Your task to perform on an android device: move an email to a new category in the gmail app Image 0: 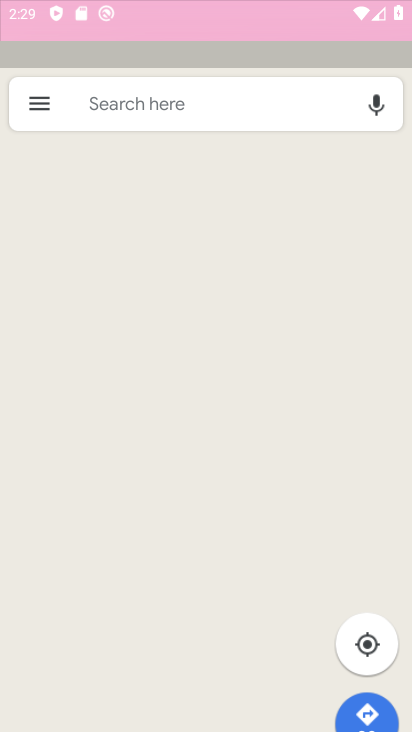
Step 0: click (202, 128)
Your task to perform on an android device: move an email to a new category in the gmail app Image 1: 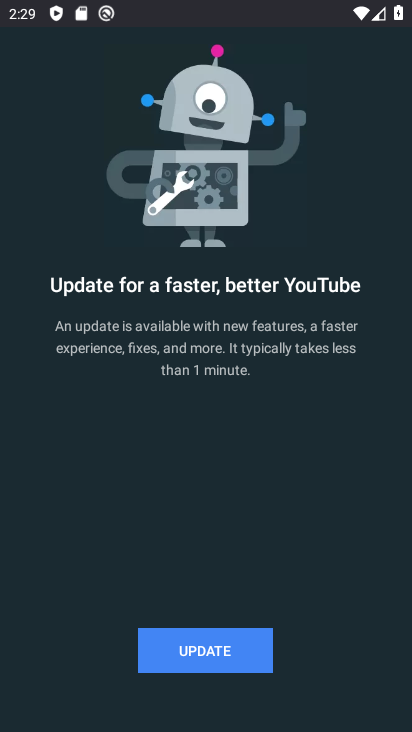
Step 1: press home button
Your task to perform on an android device: move an email to a new category in the gmail app Image 2: 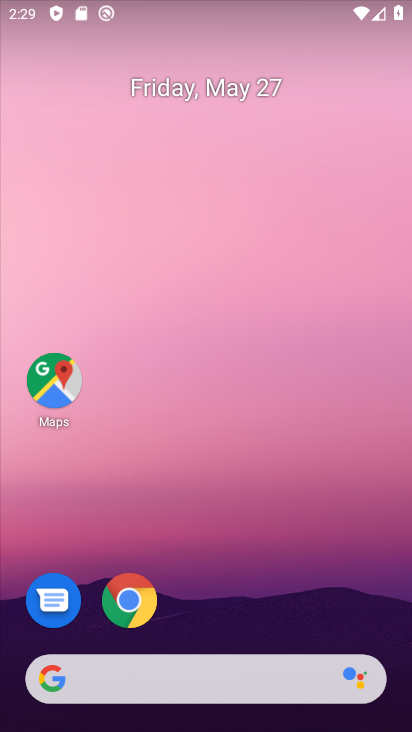
Step 2: drag from (225, 730) to (228, 296)
Your task to perform on an android device: move an email to a new category in the gmail app Image 3: 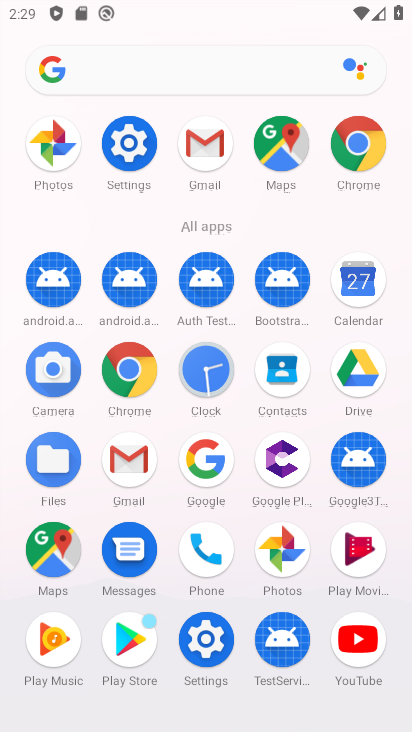
Step 3: click (200, 144)
Your task to perform on an android device: move an email to a new category in the gmail app Image 4: 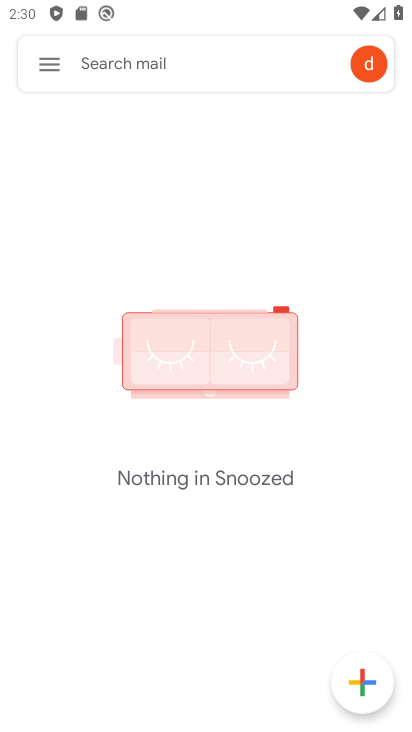
Step 4: click (49, 65)
Your task to perform on an android device: move an email to a new category in the gmail app Image 5: 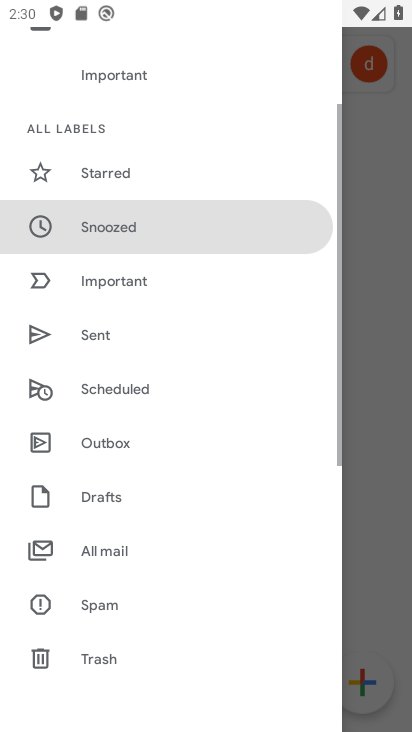
Step 5: drag from (115, 149) to (131, 636)
Your task to perform on an android device: move an email to a new category in the gmail app Image 6: 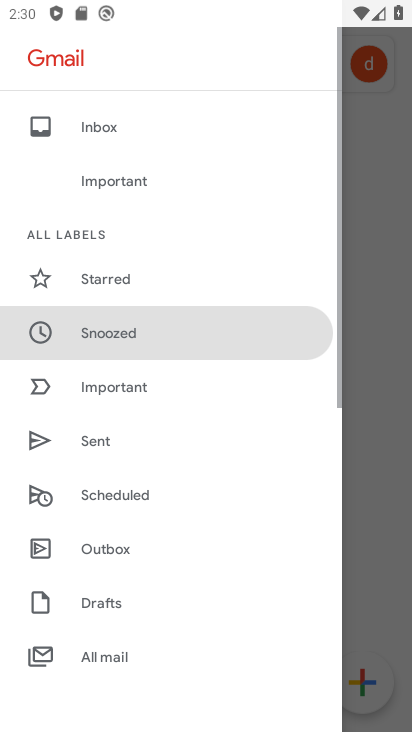
Step 6: click (106, 117)
Your task to perform on an android device: move an email to a new category in the gmail app Image 7: 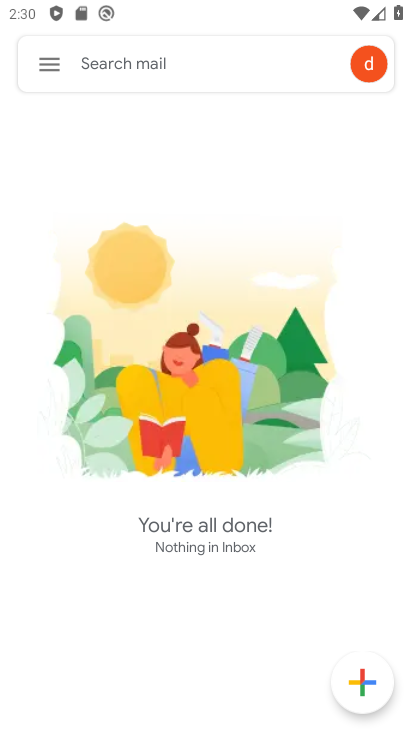
Step 7: task complete